Your task to perform on an android device: Add "usb-a to usb-b" to the cart on newegg.com, then select checkout. Image 0: 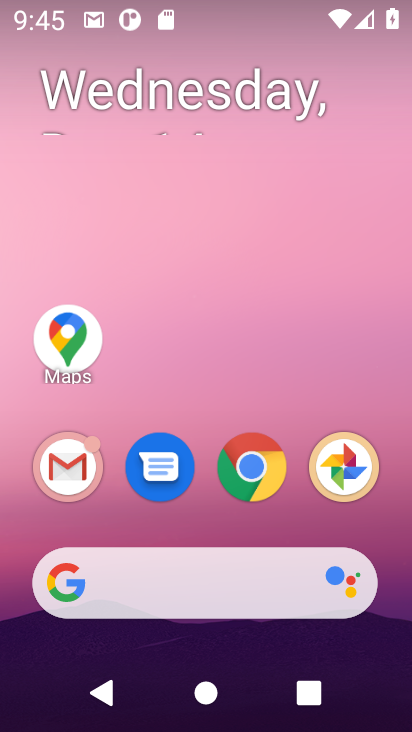
Step 0: click (275, 469)
Your task to perform on an android device: Add "usb-a to usb-b" to the cart on newegg.com, then select checkout. Image 1: 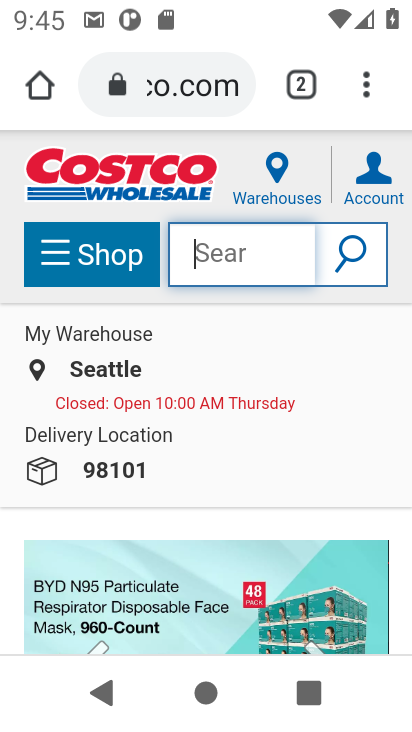
Step 1: click (212, 99)
Your task to perform on an android device: Add "usb-a to usb-b" to the cart on newegg.com, then select checkout. Image 2: 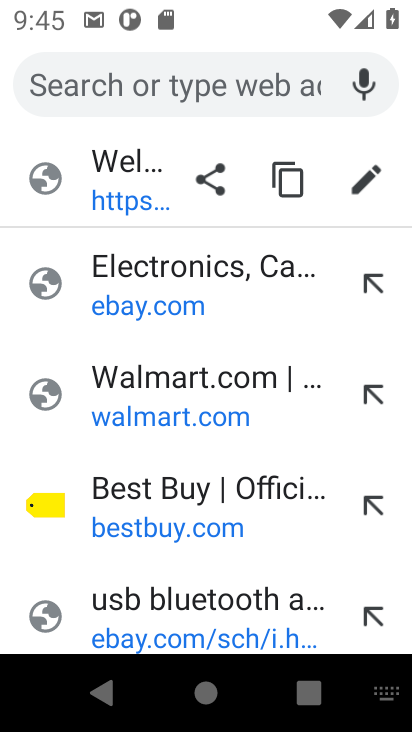
Step 2: type "newegg"
Your task to perform on an android device: Add "usb-a to usb-b" to the cart on newegg.com, then select checkout. Image 3: 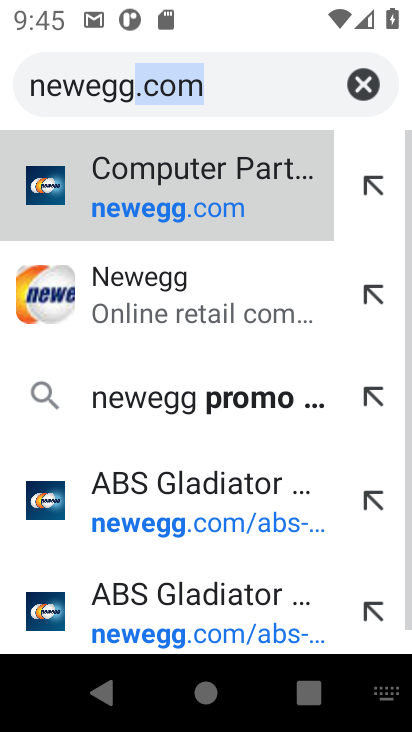
Step 3: click (126, 208)
Your task to perform on an android device: Add "usb-a to usb-b" to the cart on newegg.com, then select checkout. Image 4: 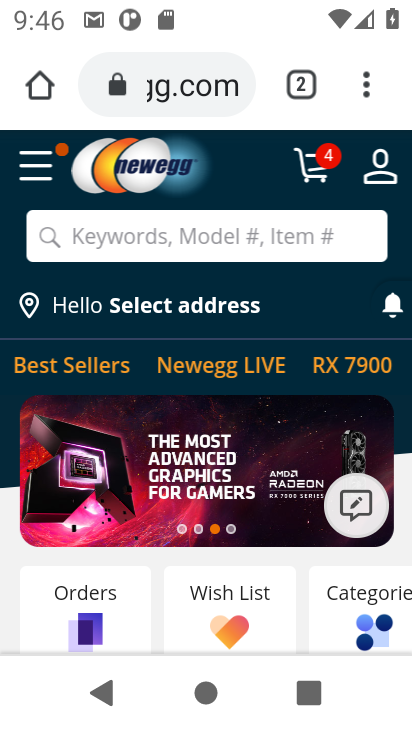
Step 4: click (157, 256)
Your task to perform on an android device: Add "usb-a to usb-b" to the cart on newegg.com, then select checkout. Image 5: 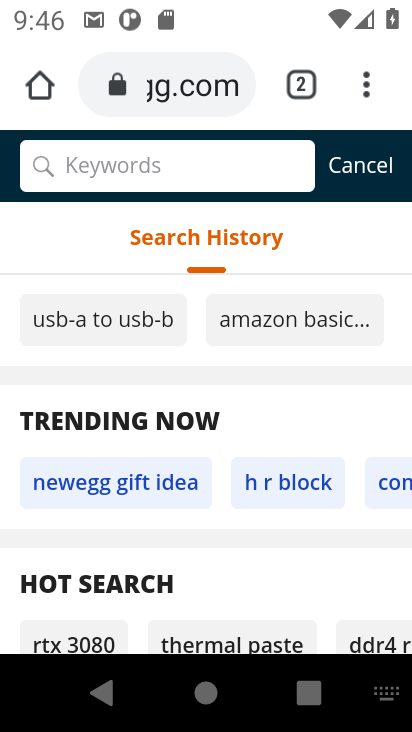
Step 5: type "usb-a to usb-b"
Your task to perform on an android device: Add "usb-a to usb-b" to the cart on newegg.com, then select checkout. Image 6: 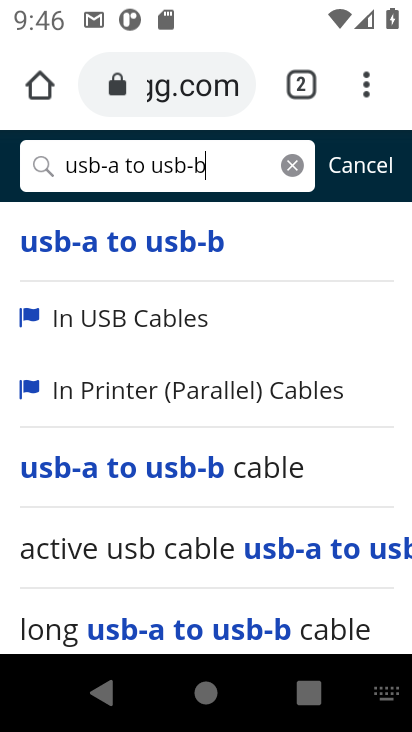
Step 6: click (246, 255)
Your task to perform on an android device: Add "usb-a to usb-b" to the cart on newegg.com, then select checkout. Image 7: 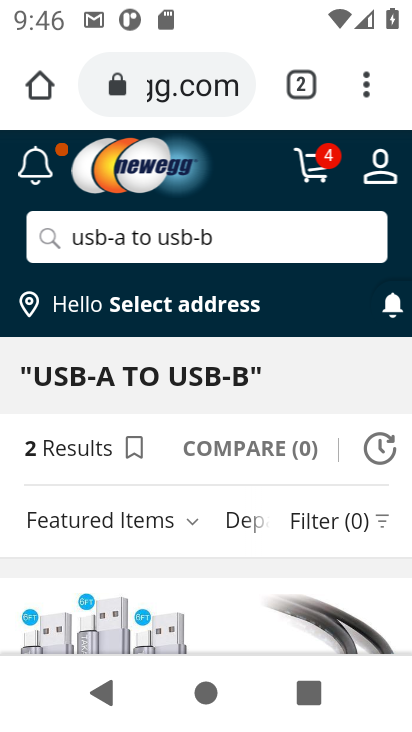
Step 7: click (227, 601)
Your task to perform on an android device: Add "usb-a to usb-b" to the cart on newegg.com, then select checkout. Image 8: 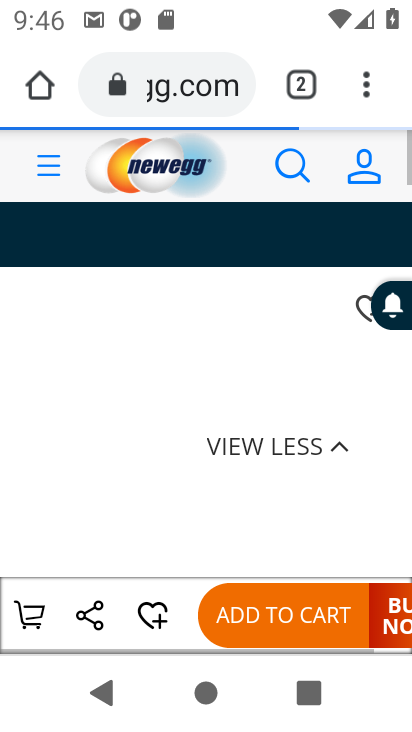
Step 8: click (263, 595)
Your task to perform on an android device: Add "usb-a to usb-b" to the cart on newegg.com, then select checkout. Image 9: 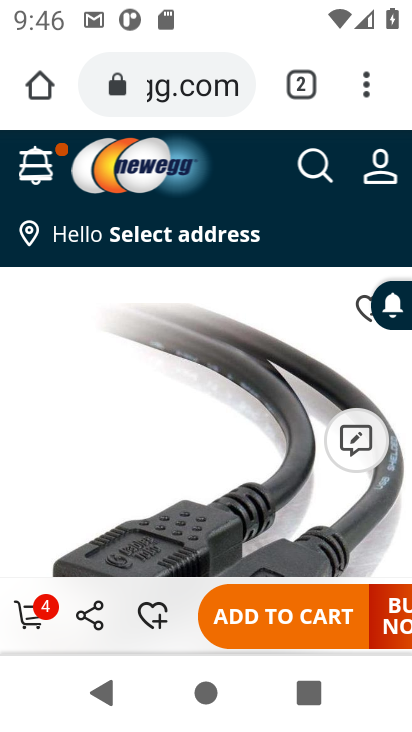
Step 9: task complete